Your task to perform on an android device: Open Wikipedia Image 0: 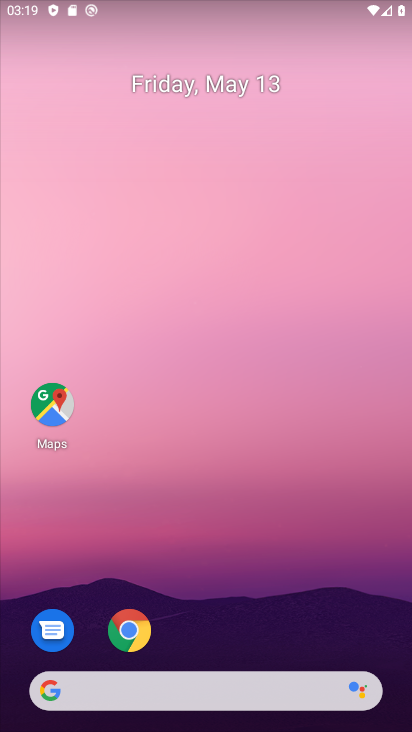
Step 0: click (106, 643)
Your task to perform on an android device: Open Wikipedia Image 1: 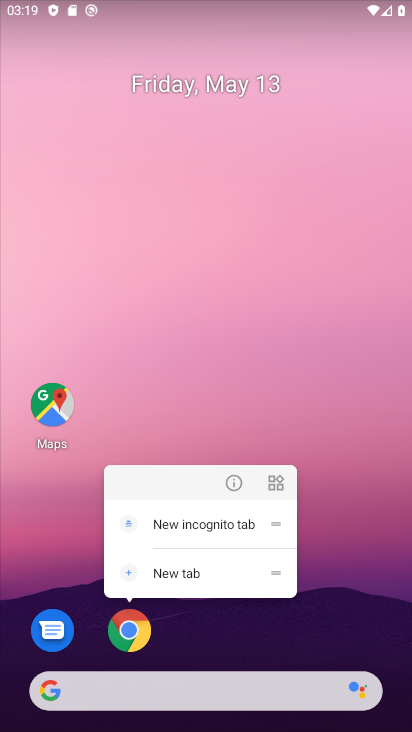
Step 1: click (126, 629)
Your task to perform on an android device: Open Wikipedia Image 2: 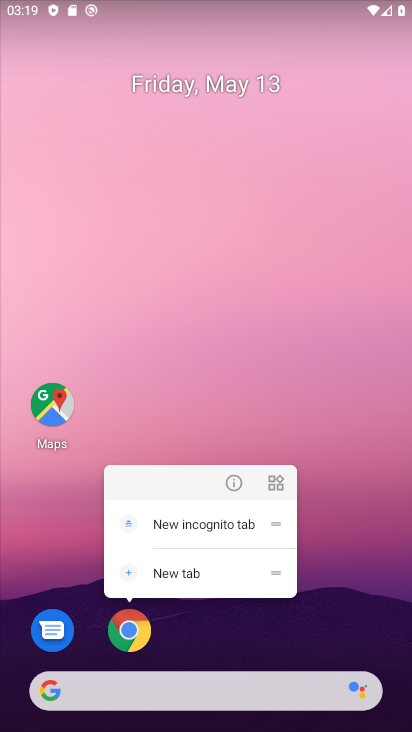
Step 2: click (127, 628)
Your task to perform on an android device: Open Wikipedia Image 3: 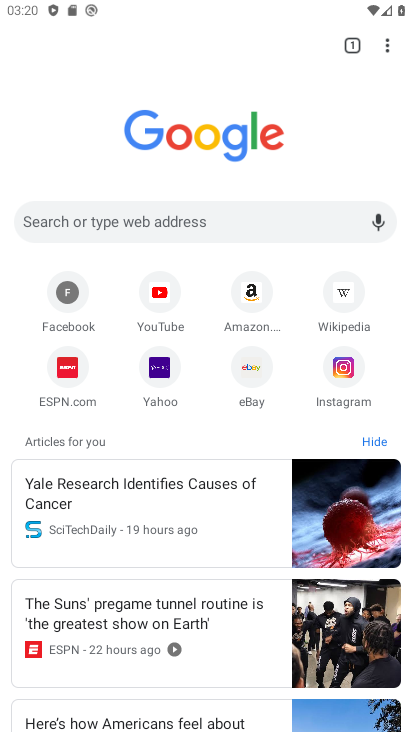
Step 3: click (343, 298)
Your task to perform on an android device: Open Wikipedia Image 4: 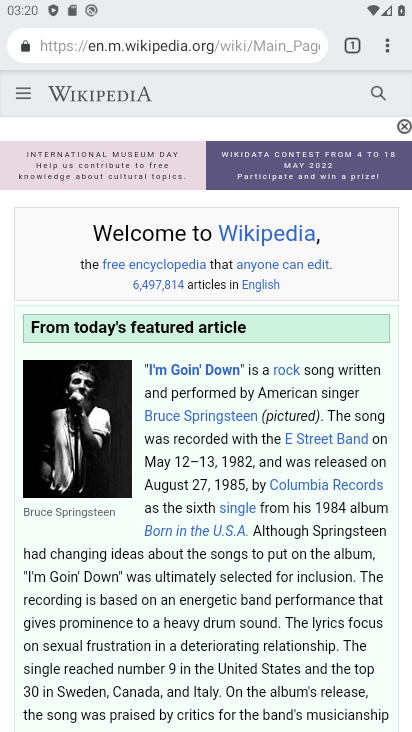
Step 4: task complete